Your task to perform on an android device: Open network settings Image 0: 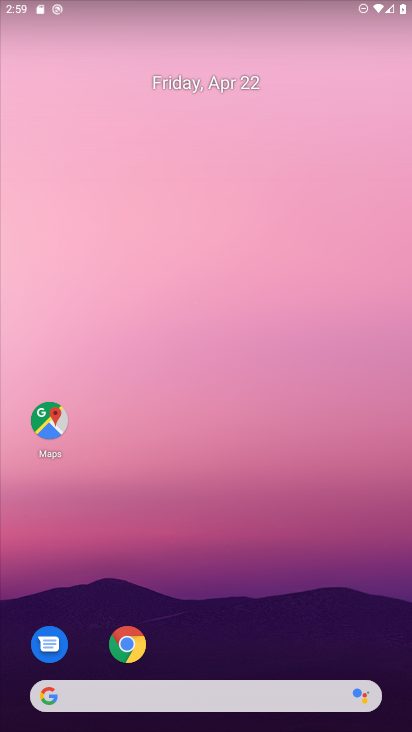
Step 0: drag from (276, 602) to (287, 145)
Your task to perform on an android device: Open network settings Image 1: 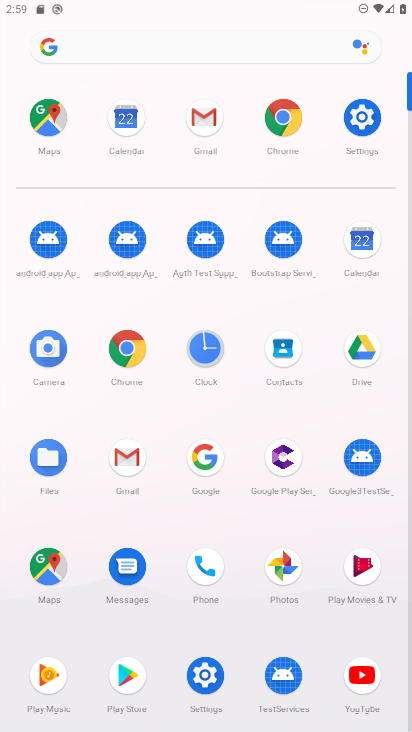
Step 1: click (364, 113)
Your task to perform on an android device: Open network settings Image 2: 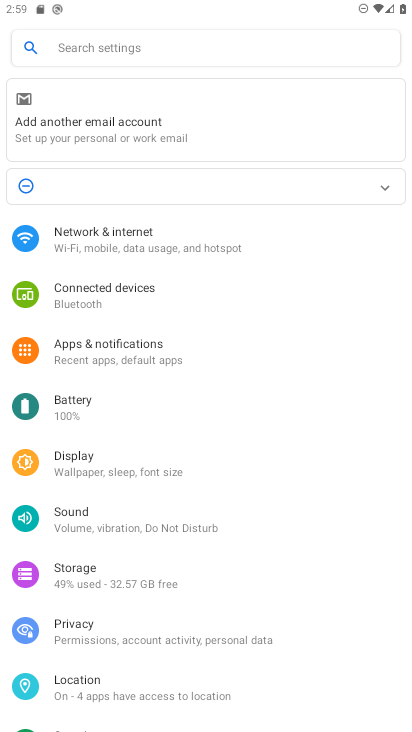
Step 2: drag from (196, 554) to (256, 164)
Your task to perform on an android device: Open network settings Image 3: 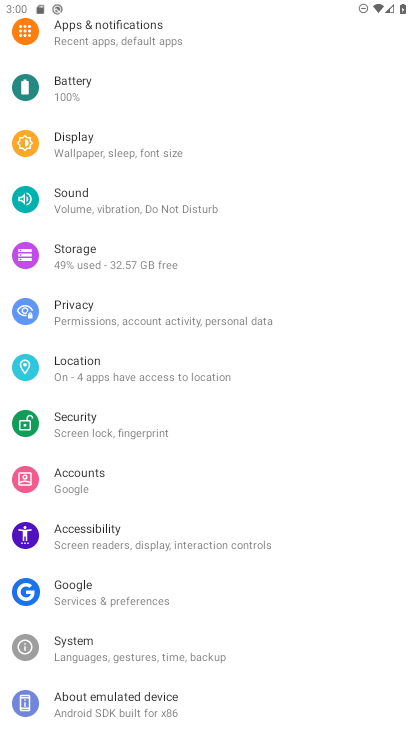
Step 3: drag from (198, 606) to (271, 726)
Your task to perform on an android device: Open network settings Image 4: 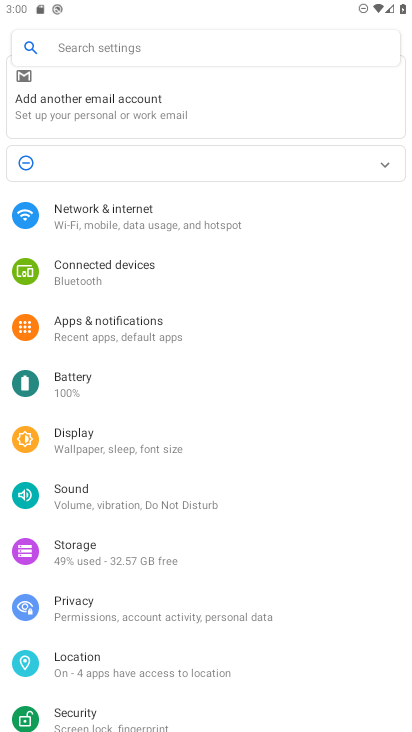
Step 4: click (160, 223)
Your task to perform on an android device: Open network settings Image 5: 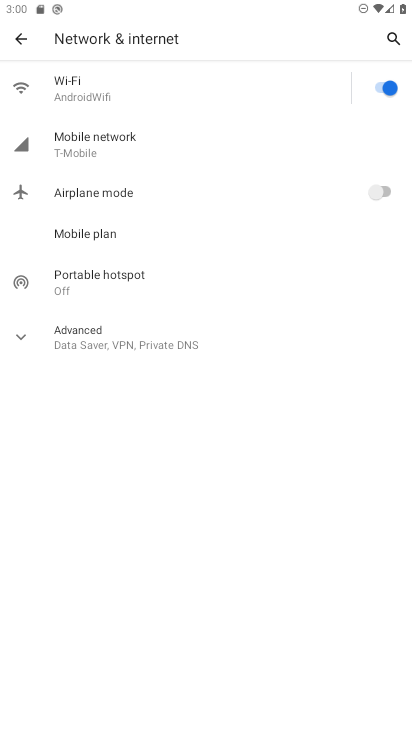
Step 5: task complete